Your task to perform on an android device: Open privacy settings Image 0: 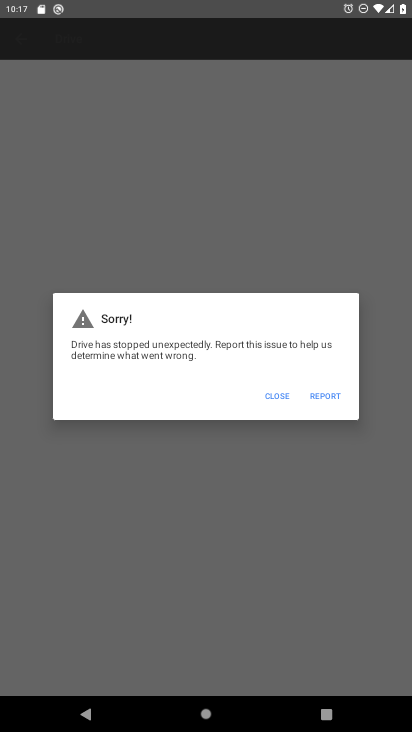
Step 0: press home button
Your task to perform on an android device: Open privacy settings Image 1: 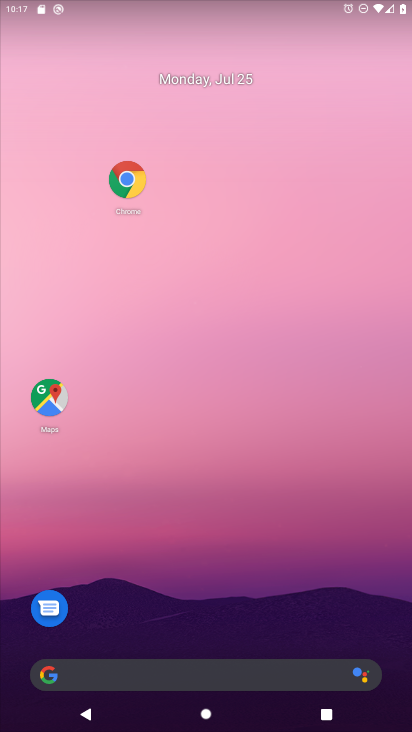
Step 1: drag from (155, 711) to (70, 184)
Your task to perform on an android device: Open privacy settings Image 2: 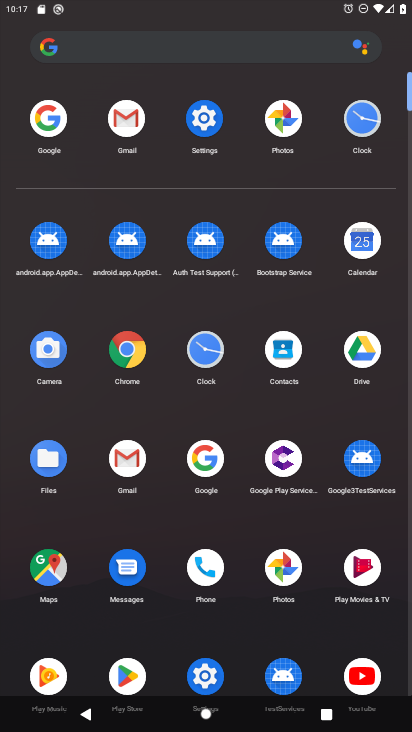
Step 2: click (206, 118)
Your task to perform on an android device: Open privacy settings Image 3: 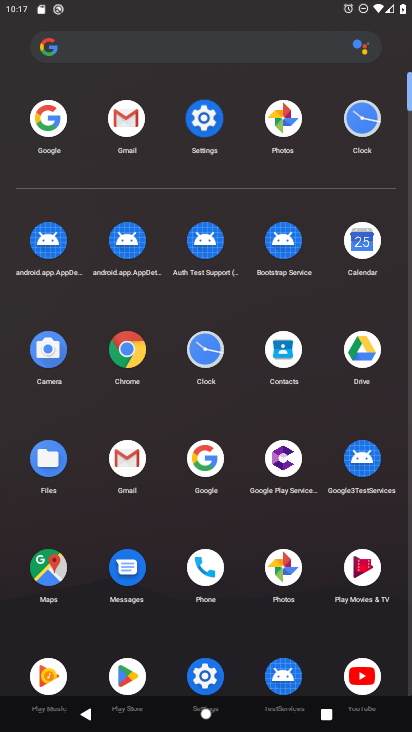
Step 3: click (206, 118)
Your task to perform on an android device: Open privacy settings Image 4: 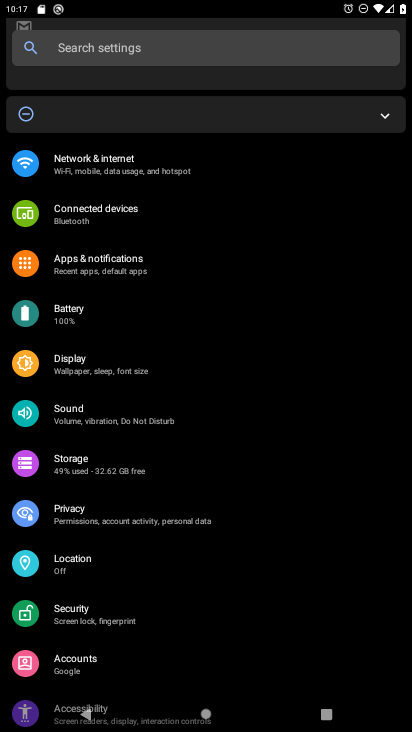
Step 4: click (102, 518)
Your task to perform on an android device: Open privacy settings Image 5: 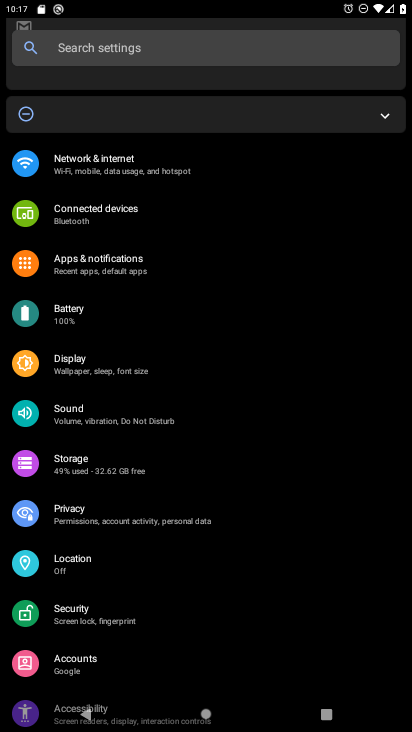
Step 5: click (102, 518)
Your task to perform on an android device: Open privacy settings Image 6: 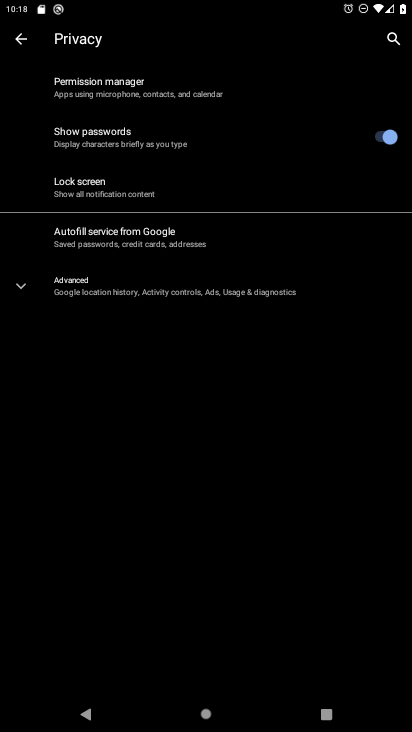
Step 6: task complete